Your task to perform on an android device: turn on showing notifications on the lock screen Image 0: 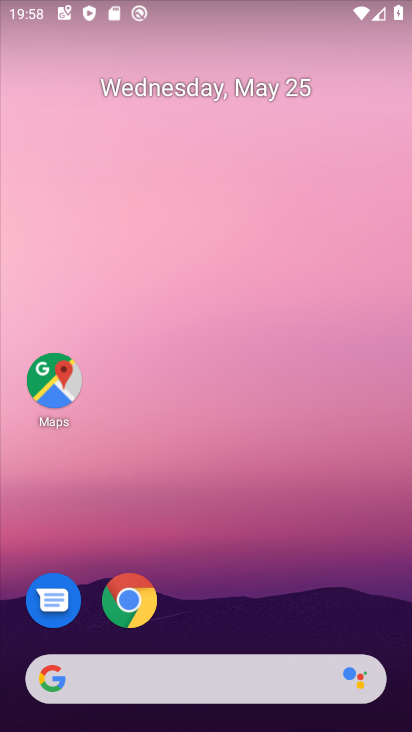
Step 0: drag from (336, 592) to (278, 143)
Your task to perform on an android device: turn on showing notifications on the lock screen Image 1: 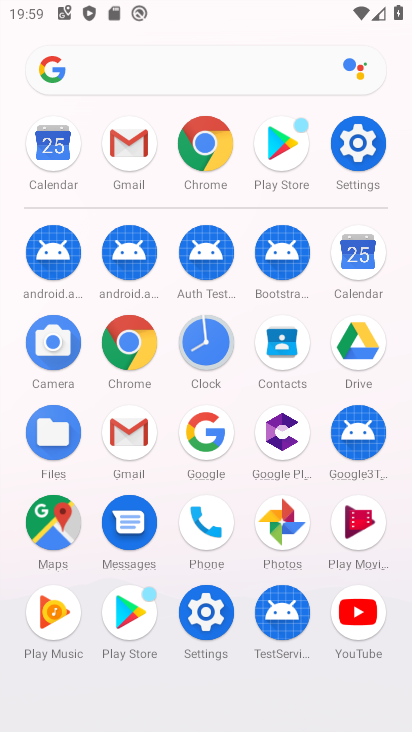
Step 1: click (352, 152)
Your task to perform on an android device: turn on showing notifications on the lock screen Image 2: 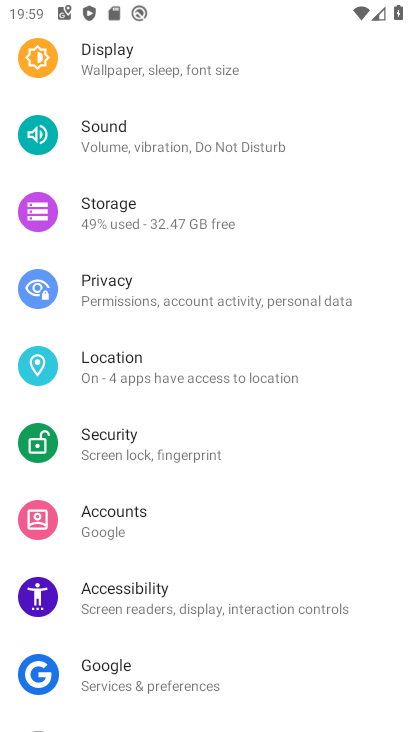
Step 2: drag from (231, 229) to (241, 570)
Your task to perform on an android device: turn on showing notifications on the lock screen Image 3: 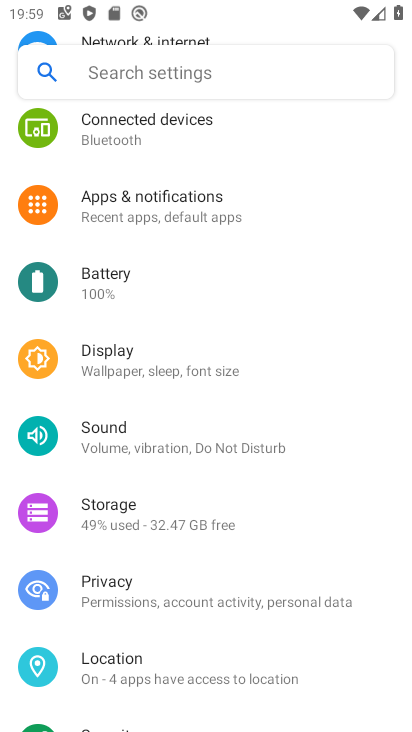
Step 3: drag from (246, 283) to (270, 645)
Your task to perform on an android device: turn on showing notifications on the lock screen Image 4: 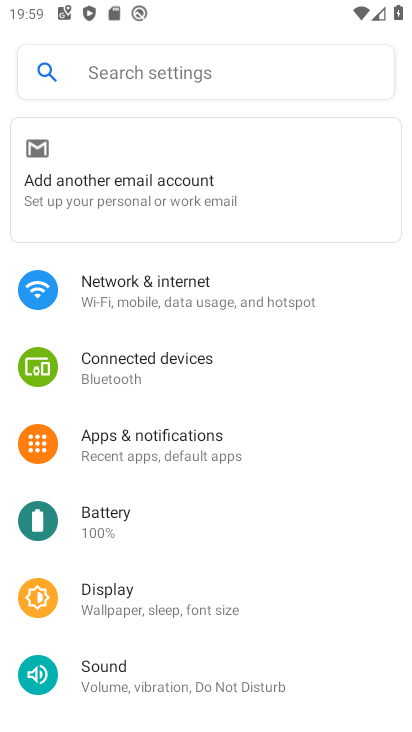
Step 4: click (210, 284)
Your task to perform on an android device: turn on showing notifications on the lock screen Image 5: 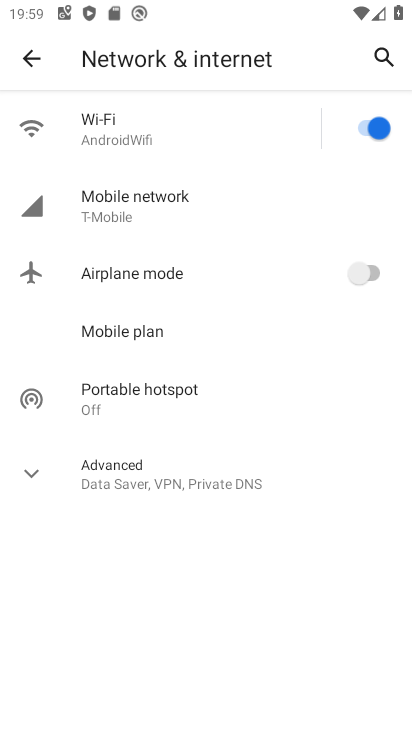
Step 5: click (24, 69)
Your task to perform on an android device: turn on showing notifications on the lock screen Image 6: 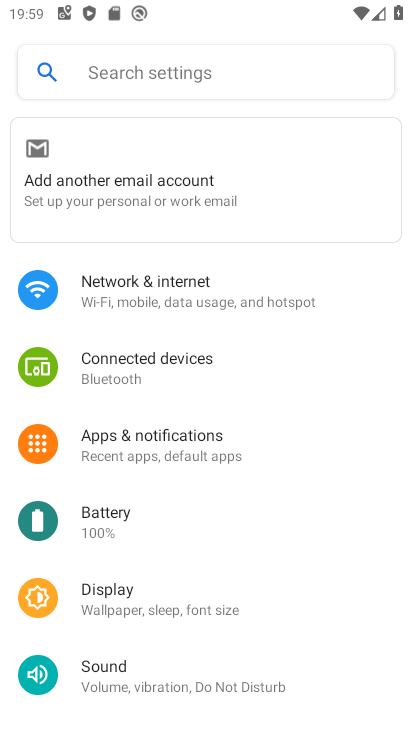
Step 6: click (201, 434)
Your task to perform on an android device: turn on showing notifications on the lock screen Image 7: 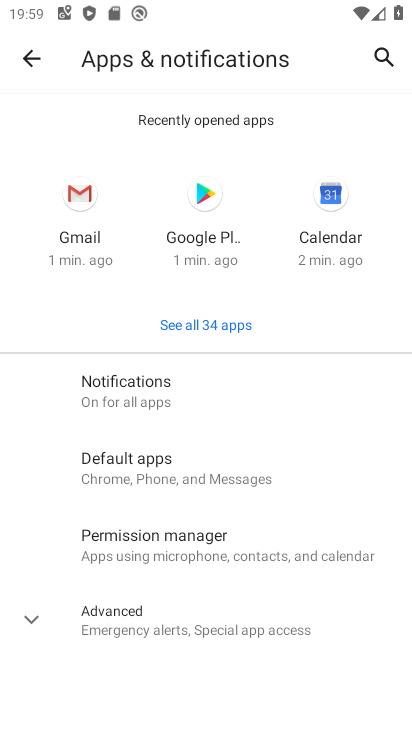
Step 7: click (227, 401)
Your task to perform on an android device: turn on showing notifications on the lock screen Image 8: 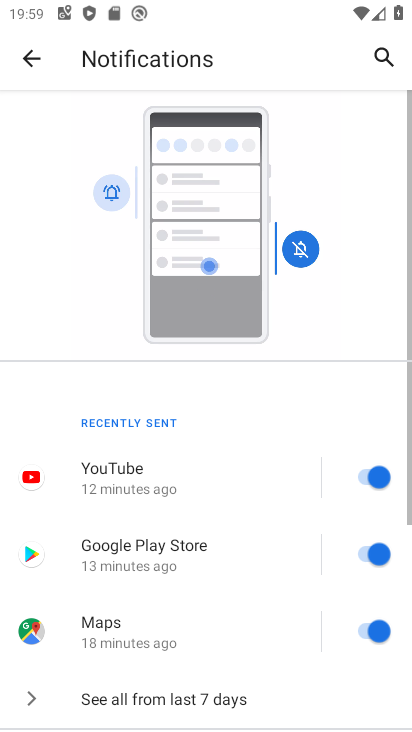
Step 8: drag from (257, 628) to (249, 305)
Your task to perform on an android device: turn on showing notifications on the lock screen Image 9: 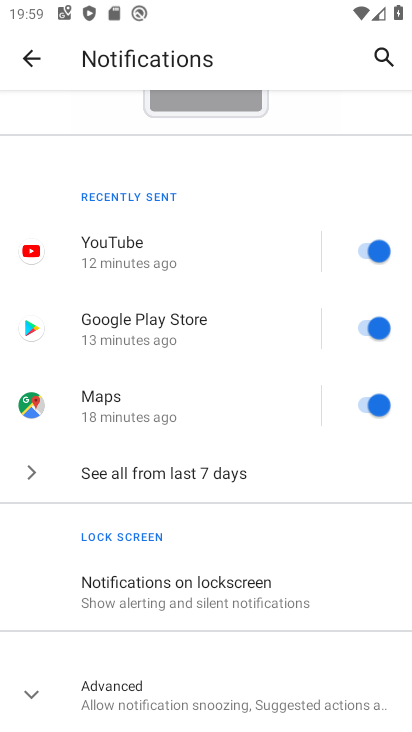
Step 9: click (252, 575)
Your task to perform on an android device: turn on showing notifications on the lock screen Image 10: 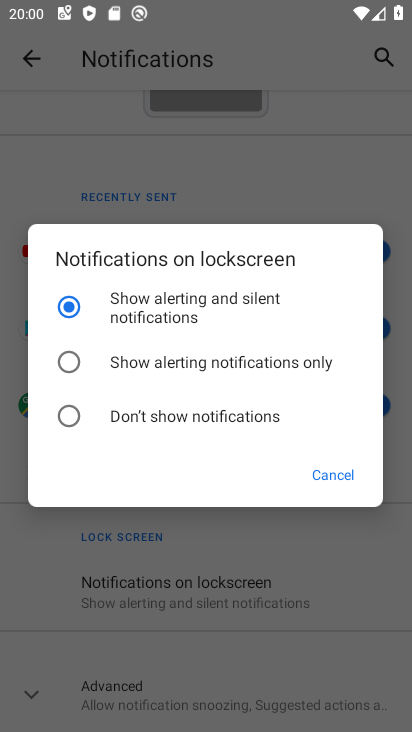
Step 10: task complete